Your task to perform on an android device: toggle javascript in the chrome app Image 0: 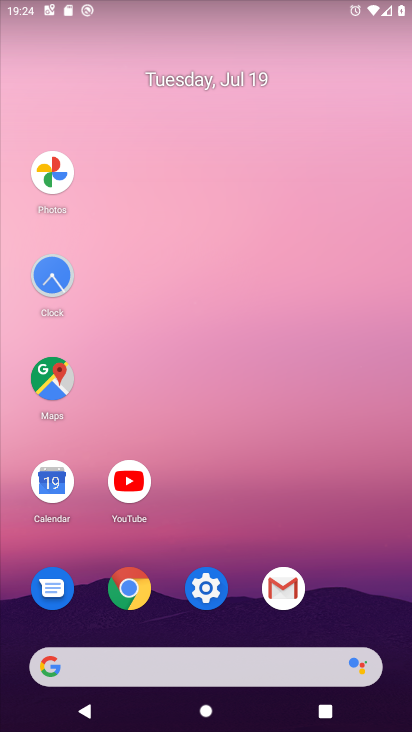
Step 0: click (124, 587)
Your task to perform on an android device: toggle javascript in the chrome app Image 1: 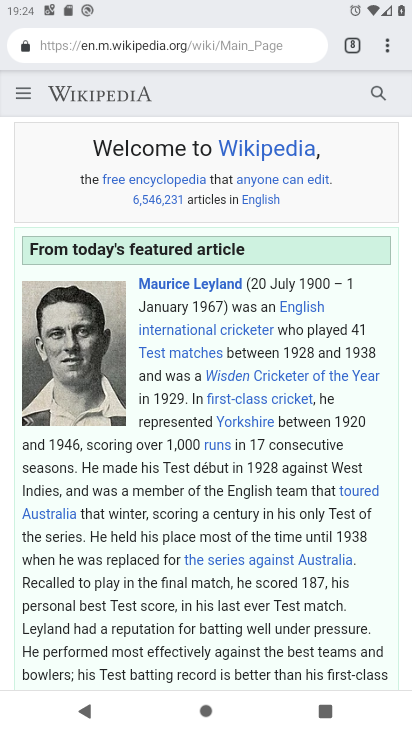
Step 1: click (388, 45)
Your task to perform on an android device: toggle javascript in the chrome app Image 2: 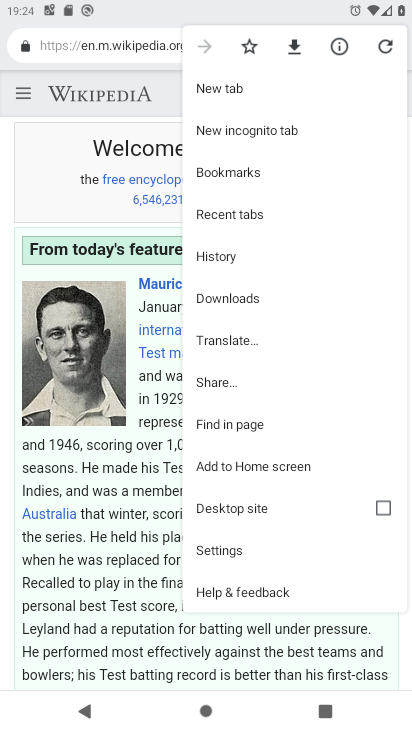
Step 2: click (226, 546)
Your task to perform on an android device: toggle javascript in the chrome app Image 3: 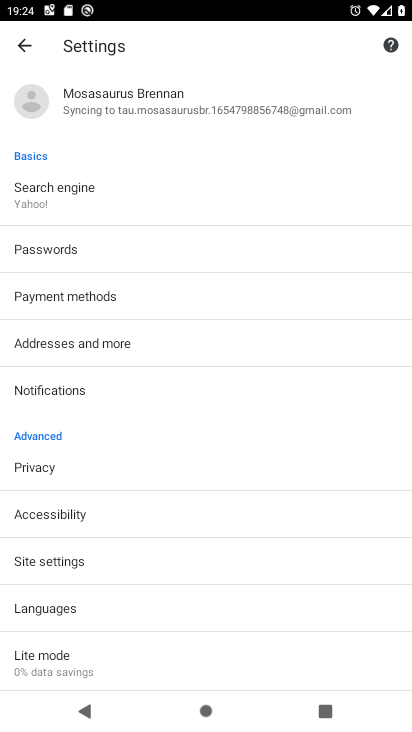
Step 3: click (49, 554)
Your task to perform on an android device: toggle javascript in the chrome app Image 4: 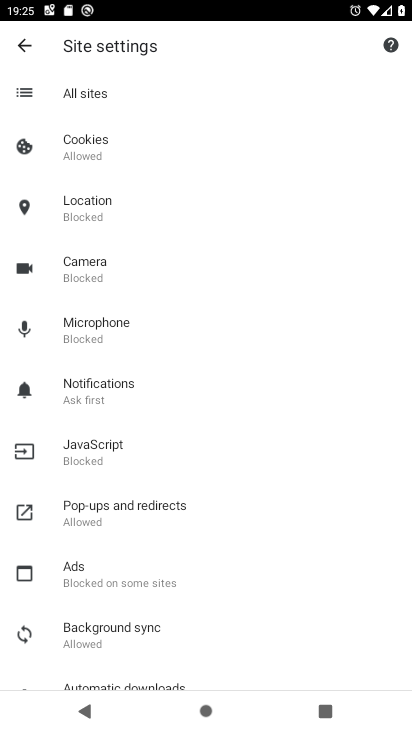
Step 4: click (98, 443)
Your task to perform on an android device: toggle javascript in the chrome app Image 5: 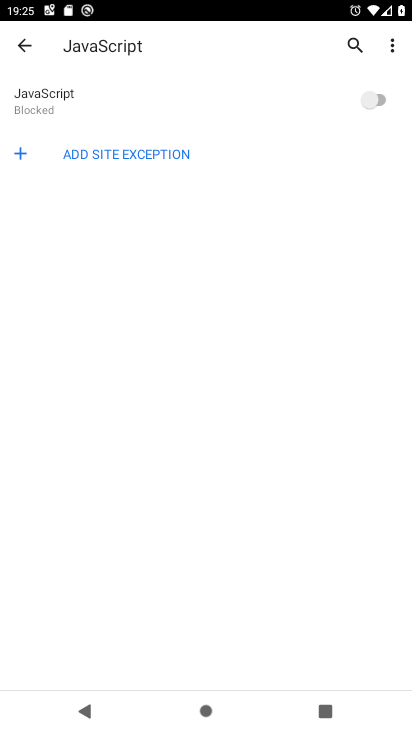
Step 5: click (368, 94)
Your task to perform on an android device: toggle javascript in the chrome app Image 6: 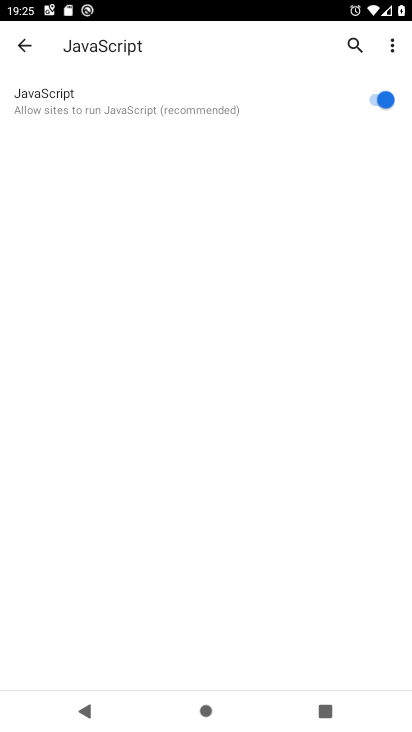
Step 6: task complete